Your task to perform on an android device: turn on the 24-hour format for clock Image 0: 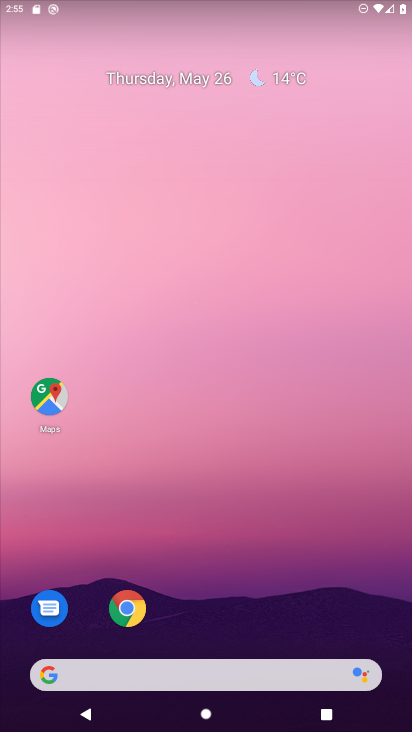
Step 0: drag from (280, 497) to (306, 106)
Your task to perform on an android device: turn on the 24-hour format for clock Image 1: 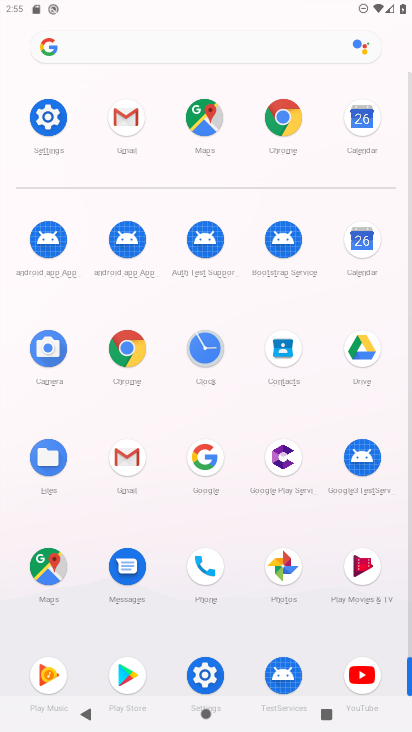
Step 1: click (201, 353)
Your task to perform on an android device: turn on the 24-hour format for clock Image 2: 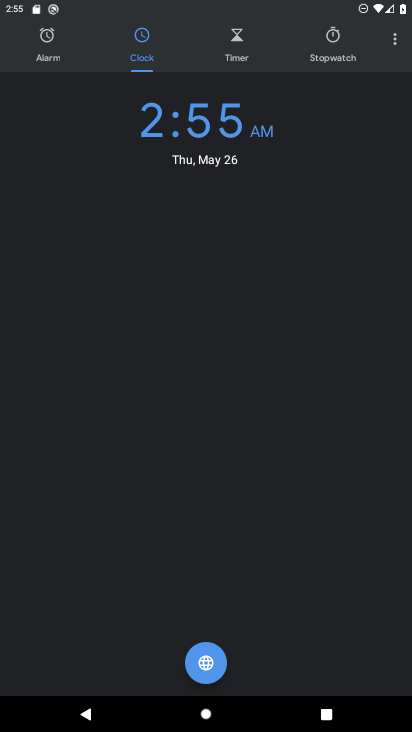
Step 2: click (390, 37)
Your task to perform on an android device: turn on the 24-hour format for clock Image 3: 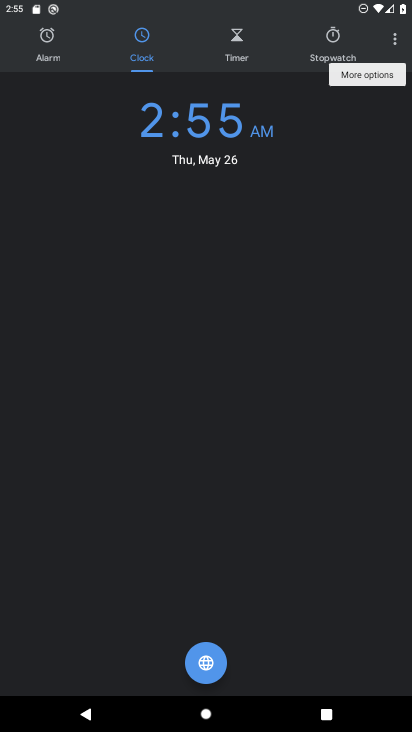
Step 3: click (390, 37)
Your task to perform on an android device: turn on the 24-hour format for clock Image 4: 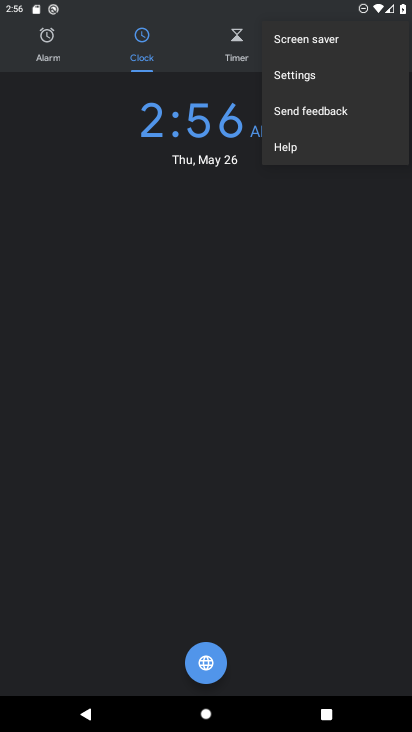
Step 4: click (282, 85)
Your task to perform on an android device: turn on the 24-hour format for clock Image 5: 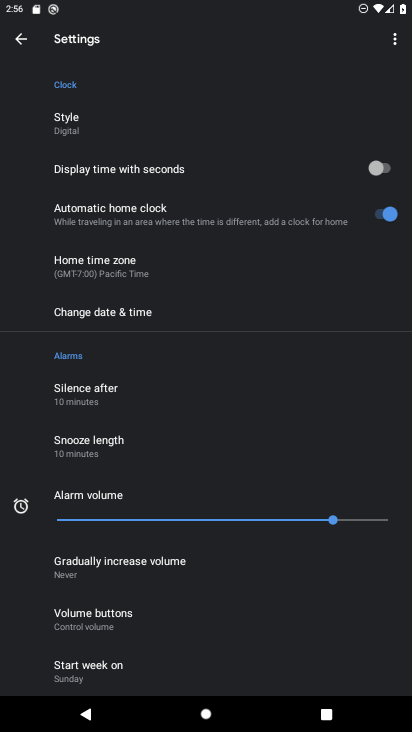
Step 5: click (72, 123)
Your task to perform on an android device: turn on the 24-hour format for clock Image 6: 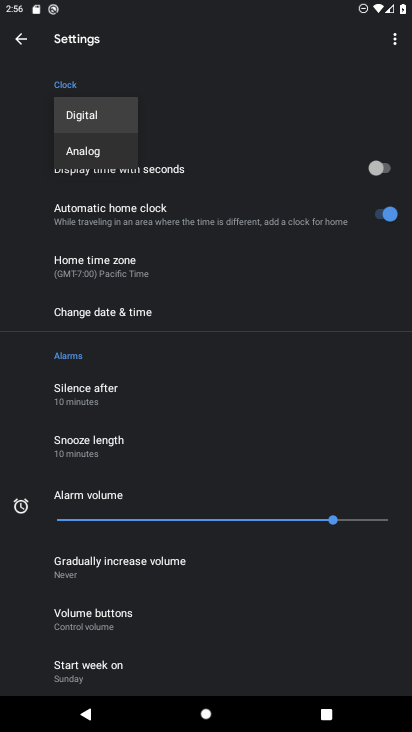
Step 6: click (113, 316)
Your task to perform on an android device: turn on the 24-hour format for clock Image 7: 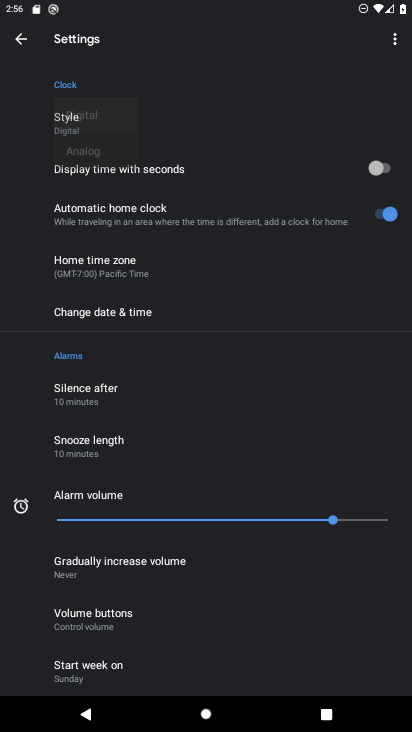
Step 7: click (113, 316)
Your task to perform on an android device: turn on the 24-hour format for clock Image 8: 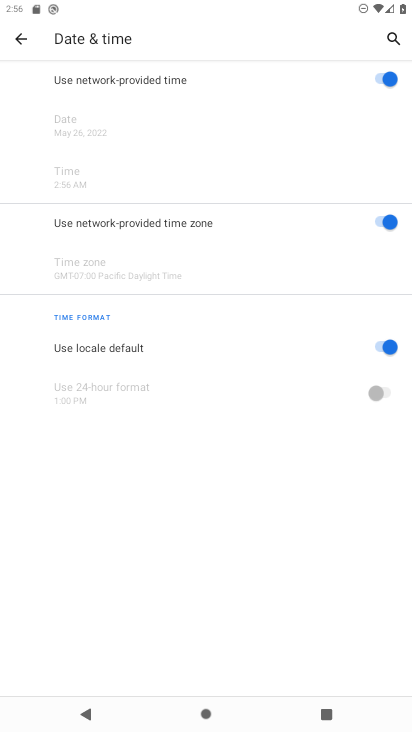
Step 8: task complete